Your task to perform on an android device: Go to Yahoo.com Image 0: 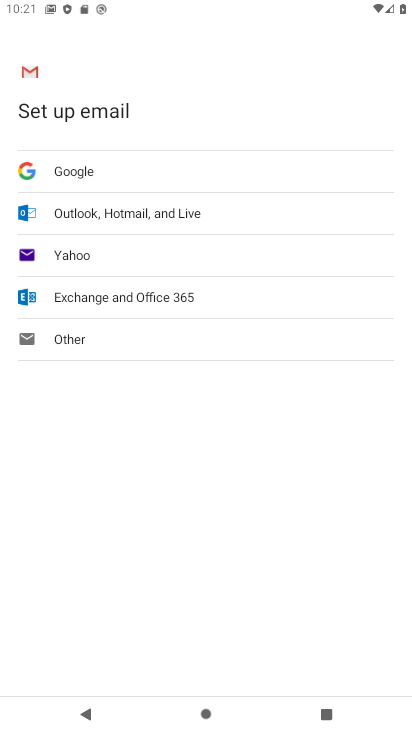
Step 0: press back button
Your task to perform on an android device: Go to Yahoo.com Image 1: 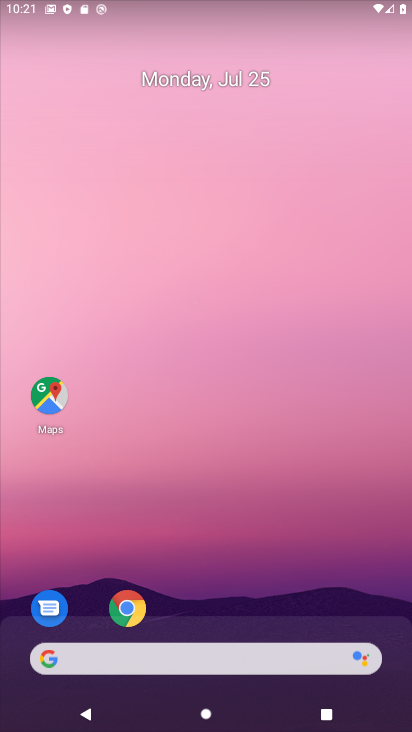
Step 1: drag from (262, 574) to (175, 92)
Your task to perform on an android device: Go to Yahoo.com Image 2: 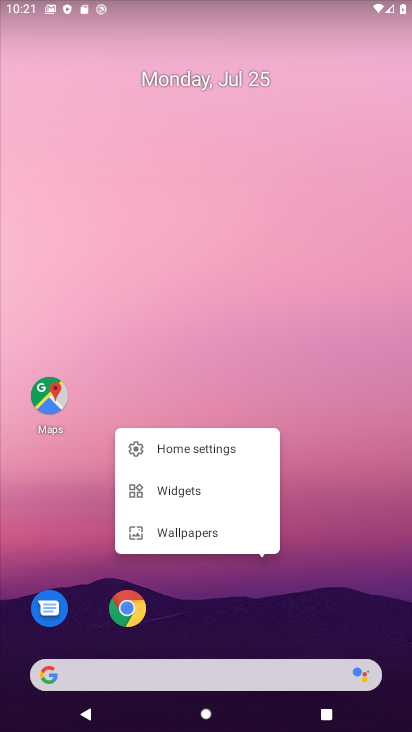
Step 2: click (161, 241)
Your task to perform on an android device: Go to Yahoo.com Image 3: 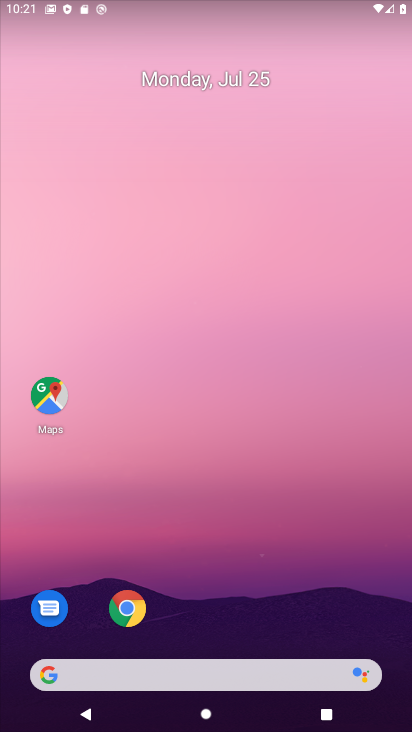
Step 3: click (161, 243)
Your task to perform on an android device: Go to Yahoo.com Image 4: 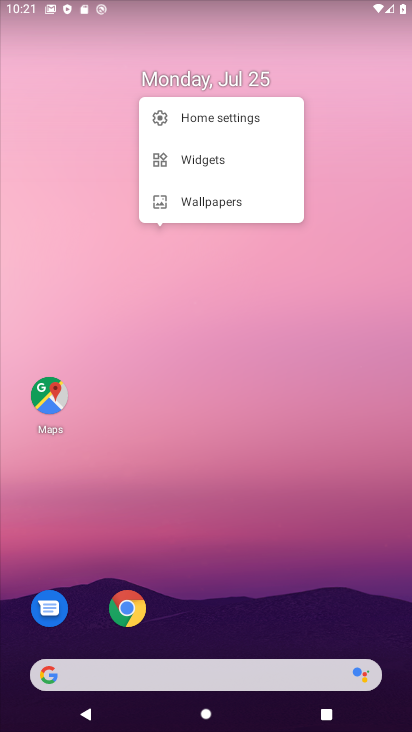
Step 4: drag from (209, 498) to (162, 330)
Your task to perform on an android device: Go to Yahoo.com Image 5: 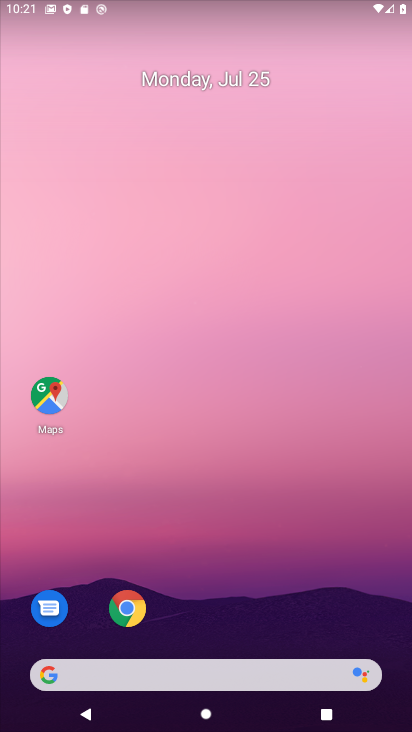
Step 5: drag from (197, 652) to (225, 239)
Your task to perform on an android device: Go to Yahoo.com Image 6: 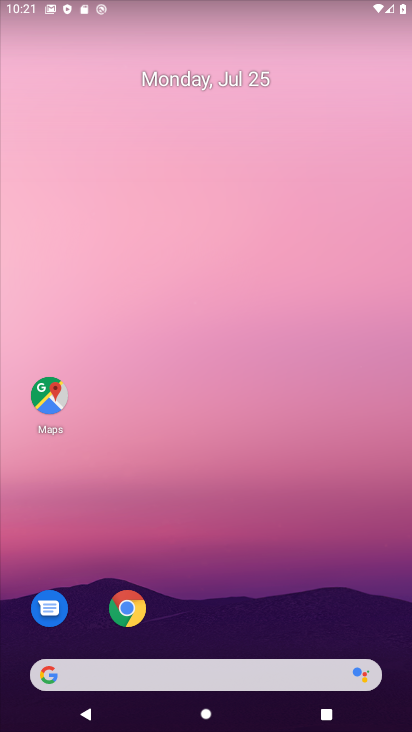
Step 6: drag from (315, 471) to (335, 244)
Your task to perform on an android device: Go to Yahoo.com Image 7: 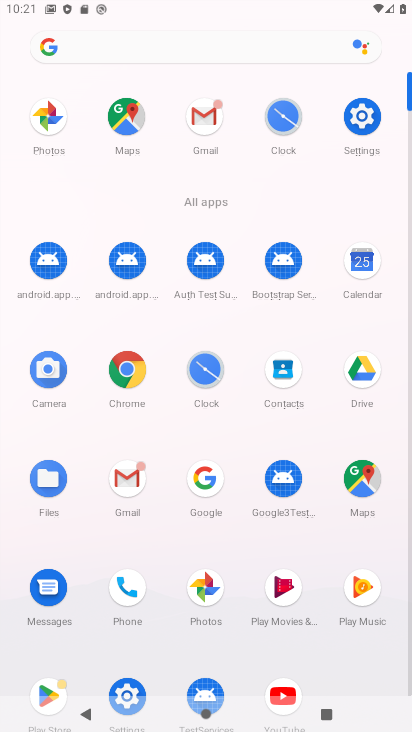
Step 7: drag from (310, 558) to (364, 152)
Your task to perform on an android device: Go to Yahoo.com Image 8: 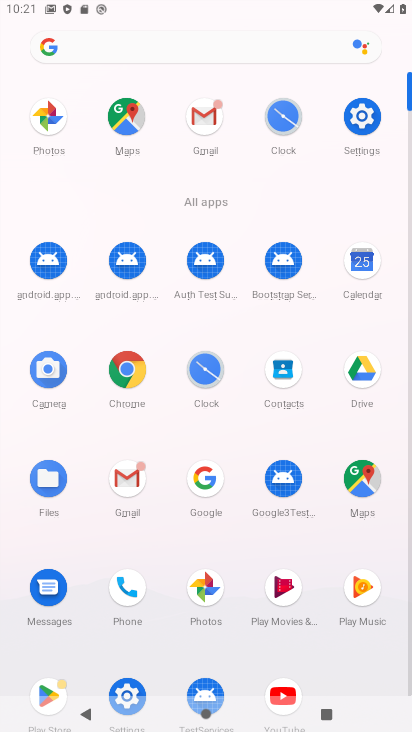
Step 8: drag from (353, 713) to (255, 103)
Your task to perform on an android device: Go to Yahoo.com Image 9: 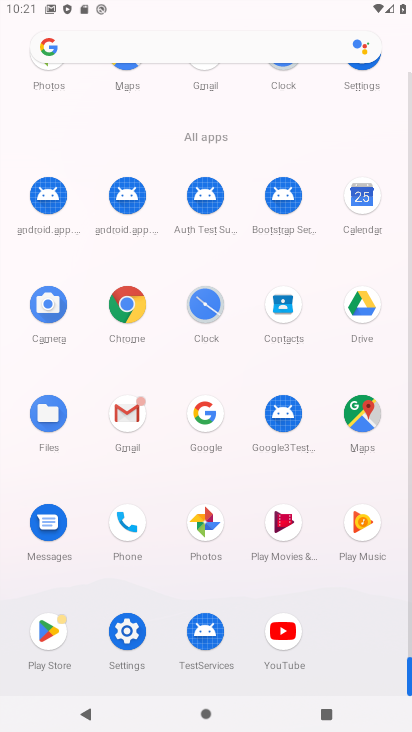
Step 9: click (125, 307)
Your task to perform on an android device: Go to Yahoo.com Image 10: 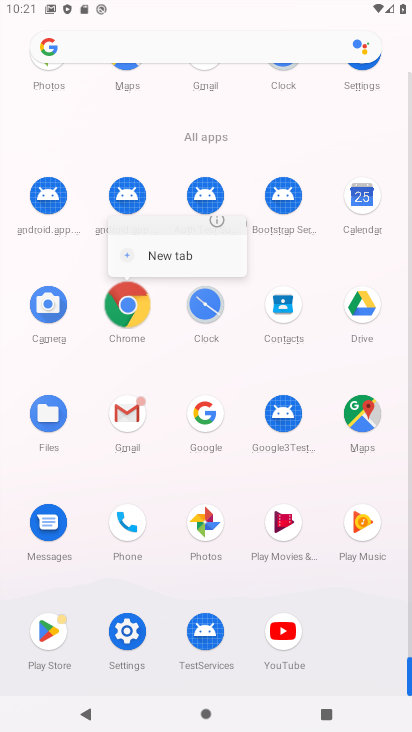
Step 10: click (127, 310)
Your task to perform on an android device: Go to Yahoo.com Image 11: 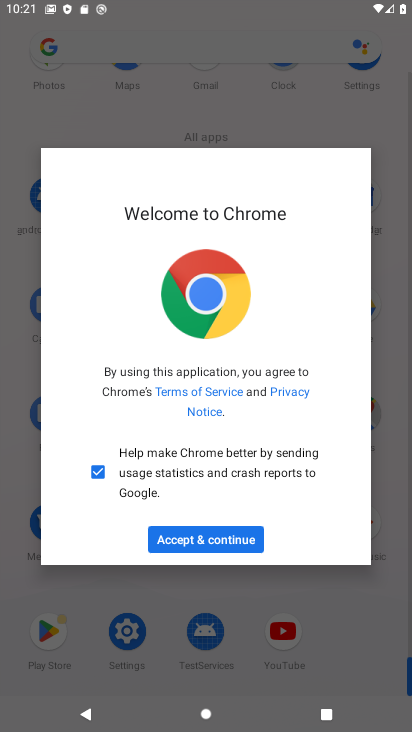
Step 11: click (221, 539)
Your task to perform on an android device: Go to Yahoo.com Image 12: 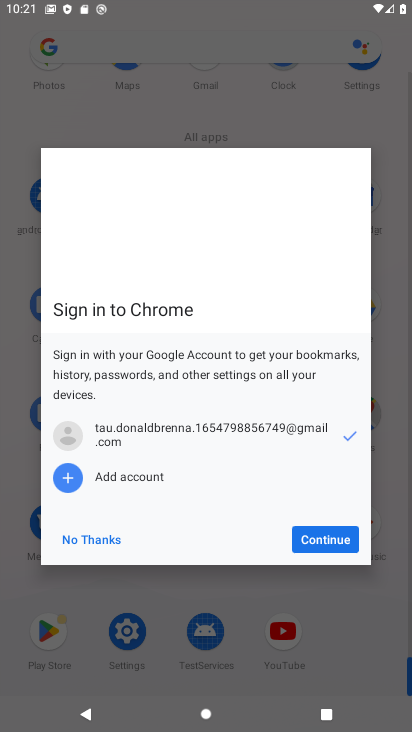
Step 12: click (221, 539)
Your task to perform on an android device: Go to Yahoo.com Image 13: 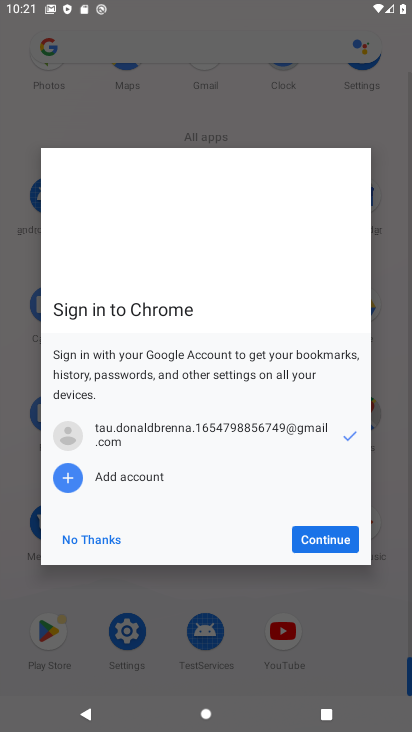
Step 13: click (65, 553)
Your task to perform on an android device: Go to Yahoo.com Image 14: 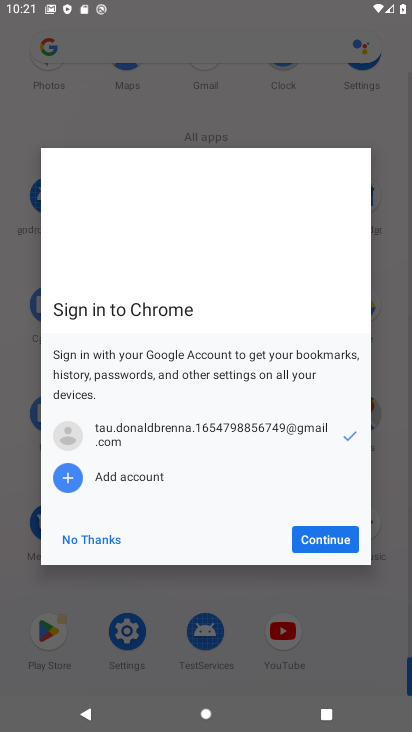
Step 14: click (73, 531)
Your task to perform on an android device: Go to Yahoo.com Image 15: 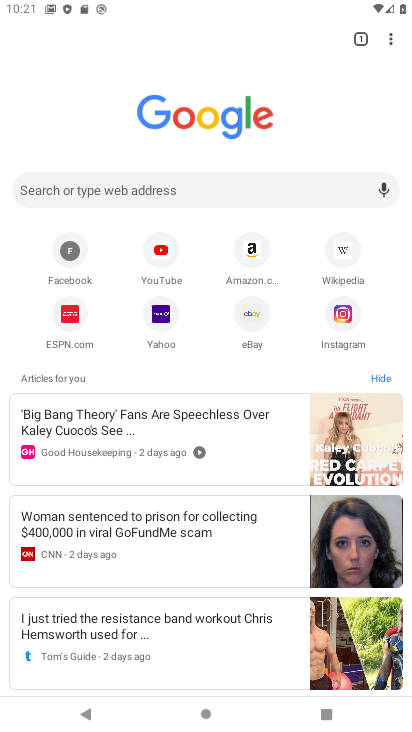
Step 15: click (161, 318)
Your task to perform on an android device: Go to Yahoo.com Image 16: 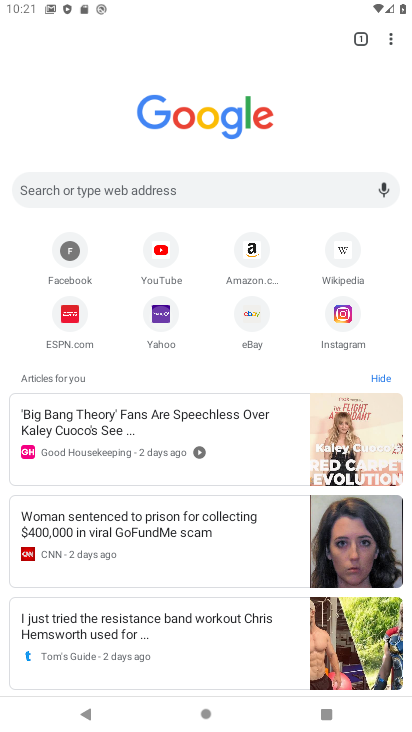
Step 16: click (161, 319)
Your task to perform on an android device: Go to Yahoo.com Image 17: 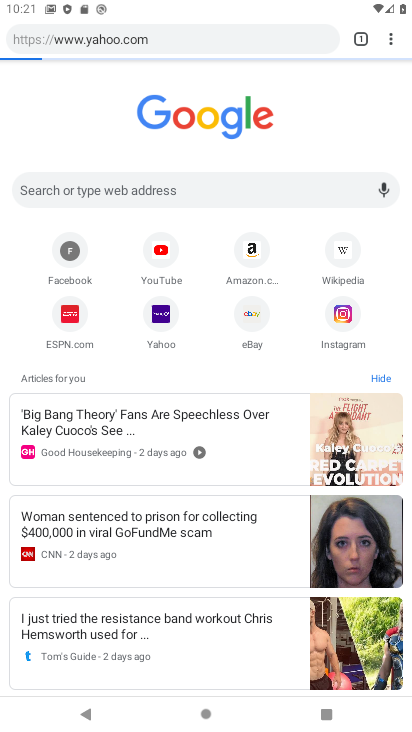
Step 17: click (162, 323)
Your task to perform on an android device: Go to Yahoo.com Image 18: 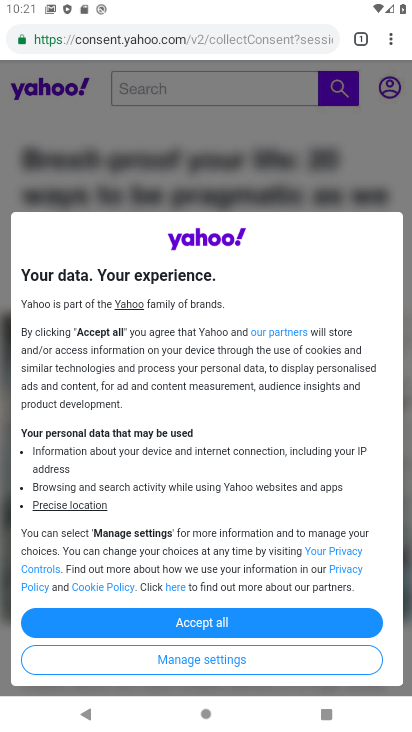
Step 18: task complete